Your task to perform on an android device: empty trash in google photos Image 0: 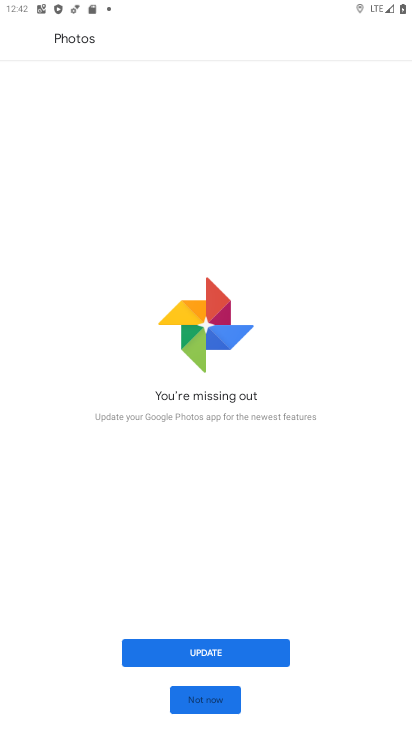
Step 0: press home button
Your task to perform on an android device: empty trash in google photos Image 1: 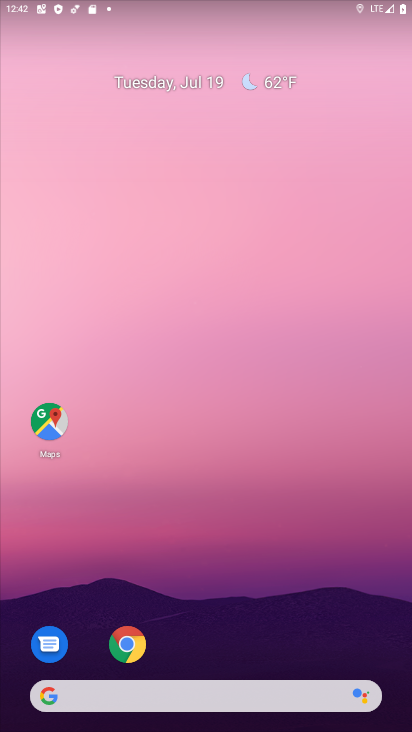
Step 1: drag from (230, 569) to (266, 25)
Your task to perform on an android device: empty trash in google photos Image 2: 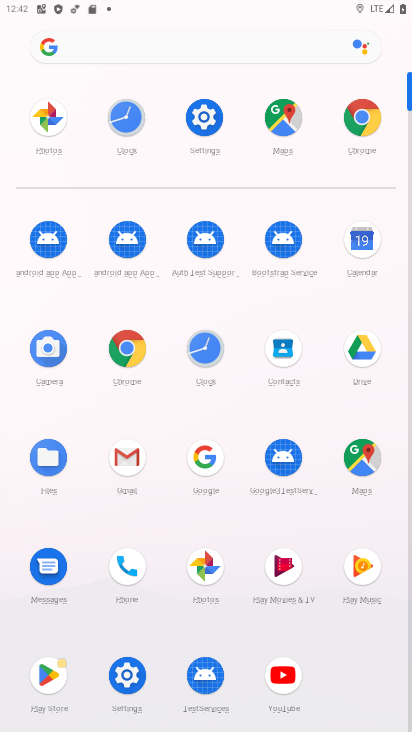
Step 2: click (45, 113)
Your task to perform on an android device: empty trash in google photos Image 3: 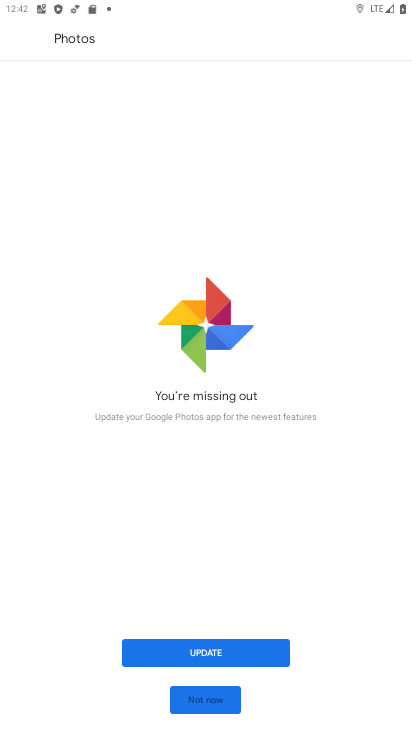
Step 3: click (202, 652)
Your task to perform on an android device: empty trash in google photos Image 4: 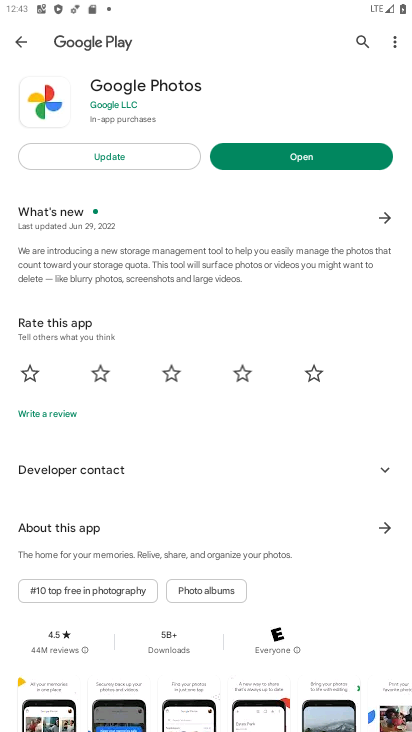
Step 4: click (145, 153)
Your task to perform on an android device: empty trash in google photos Image 5: 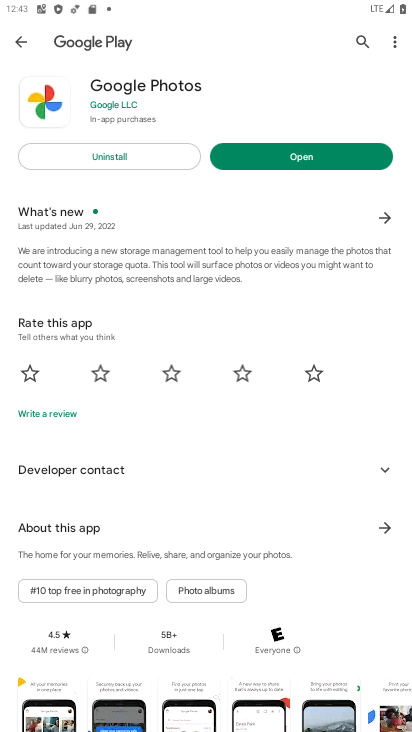
Step 5: click (221, 159)
Your task to perform on an android device: empty trash in google photos Image 6: 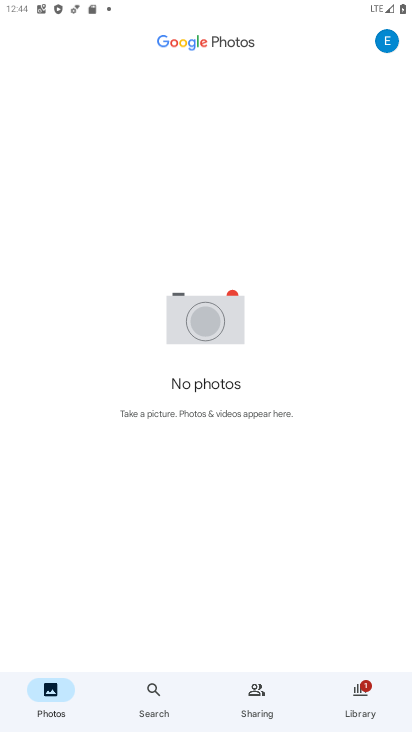
Step 6: click (351, 689)
Your task to perform on an android device: empty trash in google photos Image 7: 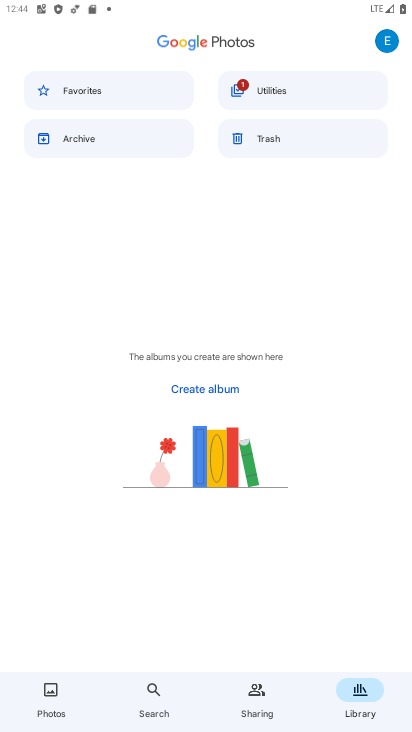
Step 7: click (270, 134)
Your task to perform on an android device: empty trash in google photos Image 8: 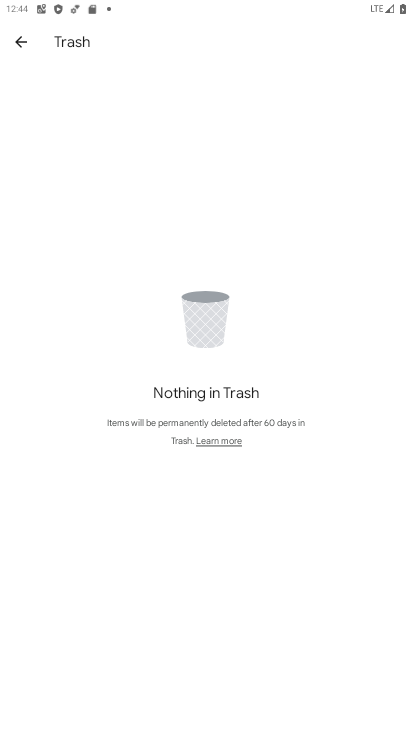
Step 8: task complete